Your task to perform on an android device: Open the phone app and click the voicemail tab. Image 0: 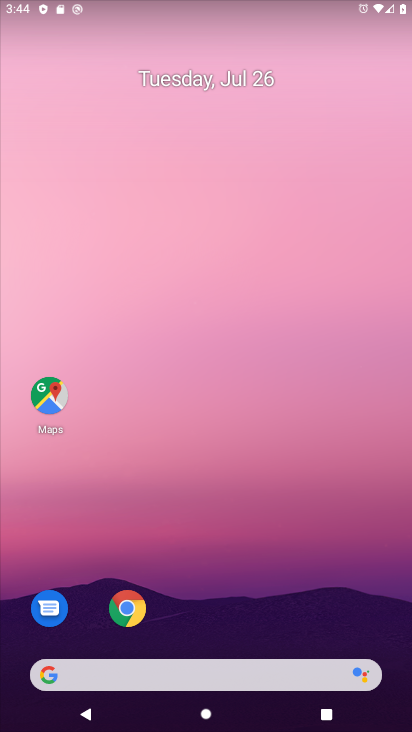
Step 0: drag from (392, 711) to (307, 177)
Your task to perform on an android device: Open the phone app and click the voicemail tab. Image 1: 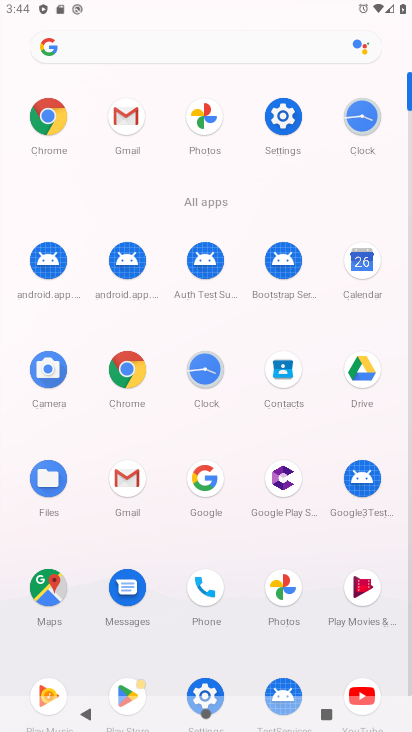
Step 1: click (213, 591)
Your task to perform on an android device: Open the phone app and click the voicemail tab. Image 2: 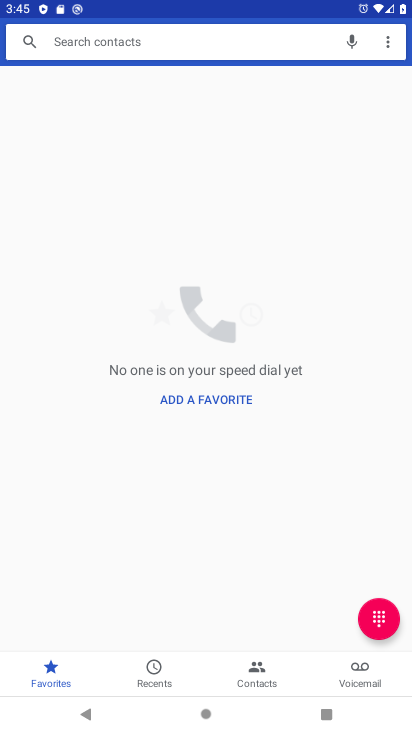
Step 2: click (360, 675)
Your task to perform on an android device: Open the phone app and click the voicemail tab. Image 3: 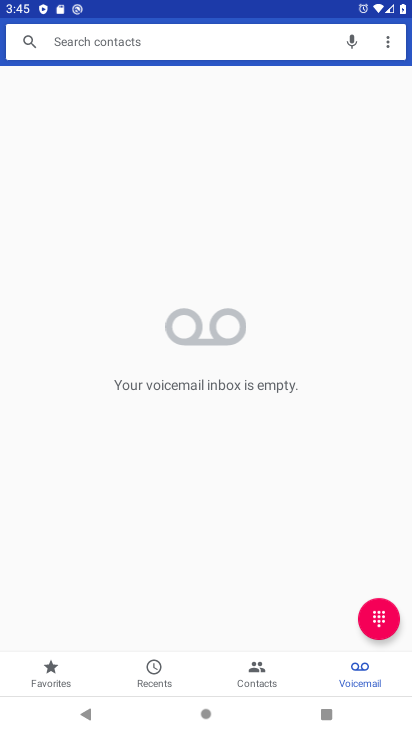
Step 3: task complete